Your task to perform on an android device: remove spam from my inbox in the gmail app Image 0: 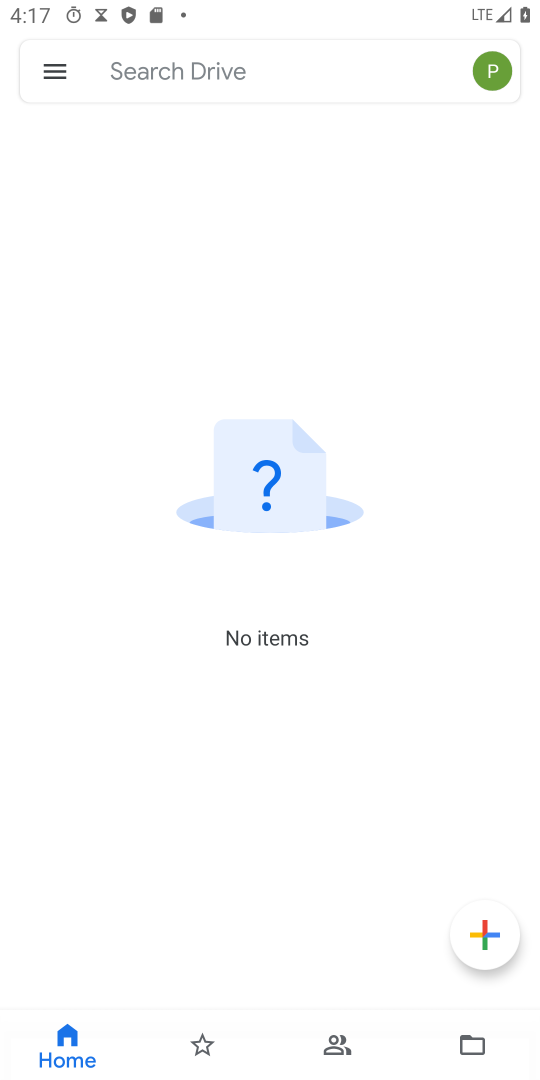
Step 0: press home button
Your task to perform on an android device: remove spam from my inbox in the gmail app Image 1: 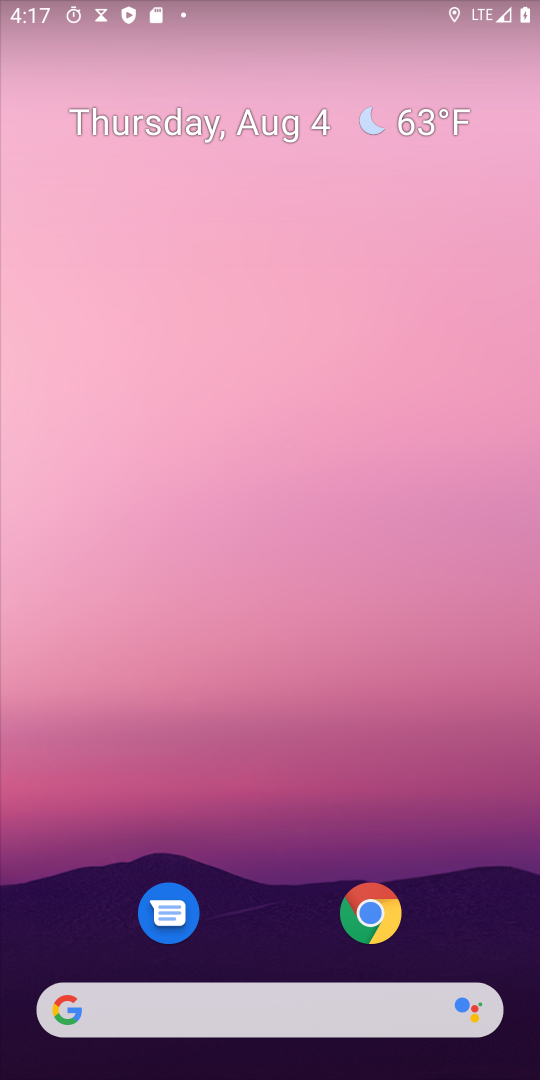
Step 1: drag from (265, 968) to (274, 114)
Your task to perform on an android device: remove spam from my inbox in the gmail app Image 2: 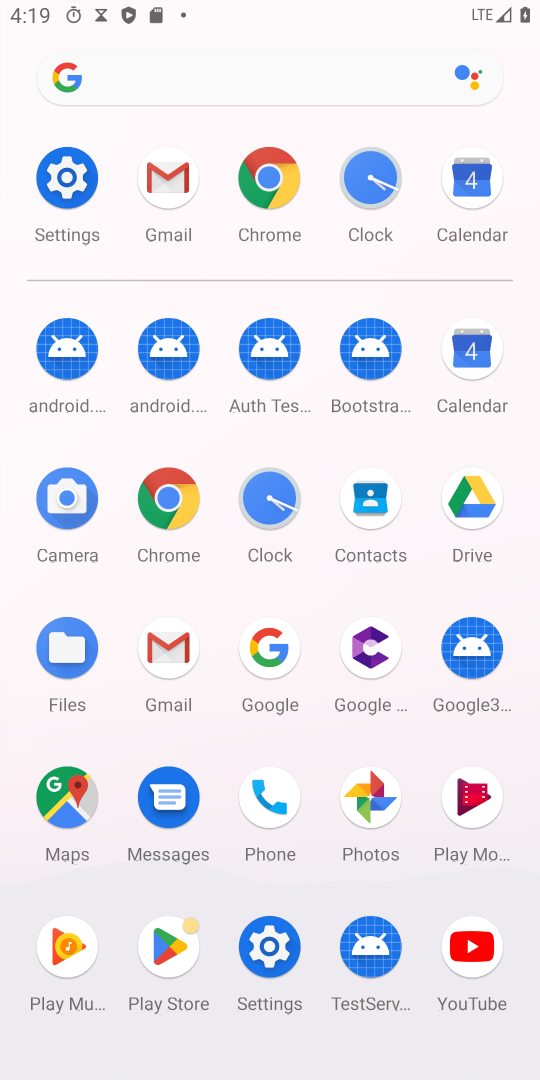
Step 2: click (181, 653)
Your task to perform on an android device: remove spam from my inbox in the gmail app Image 3: 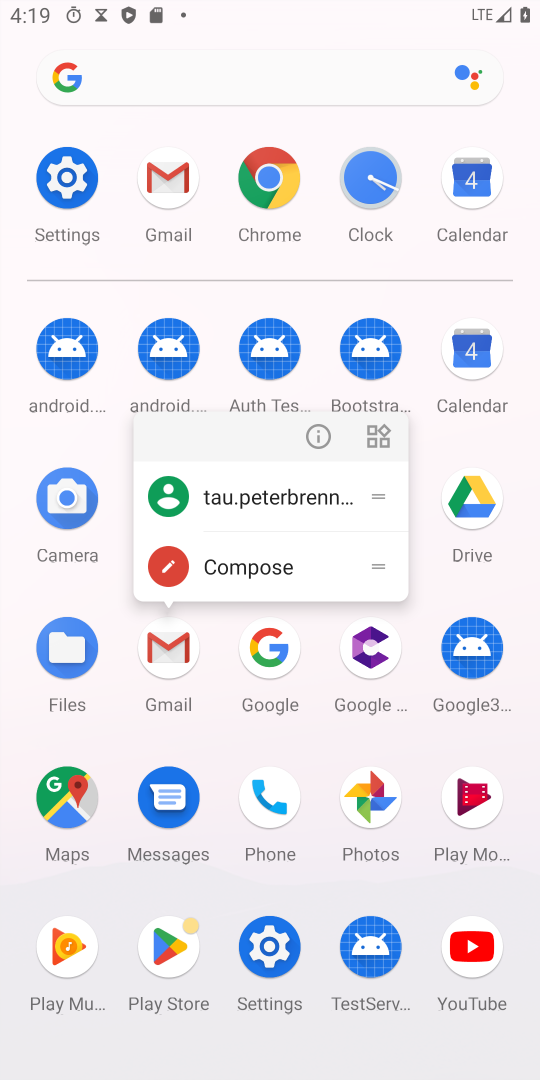
Step 3: click (166, 639)
Your task to perform on an android device: remove spam from my inbox in the gmail app Image 4: 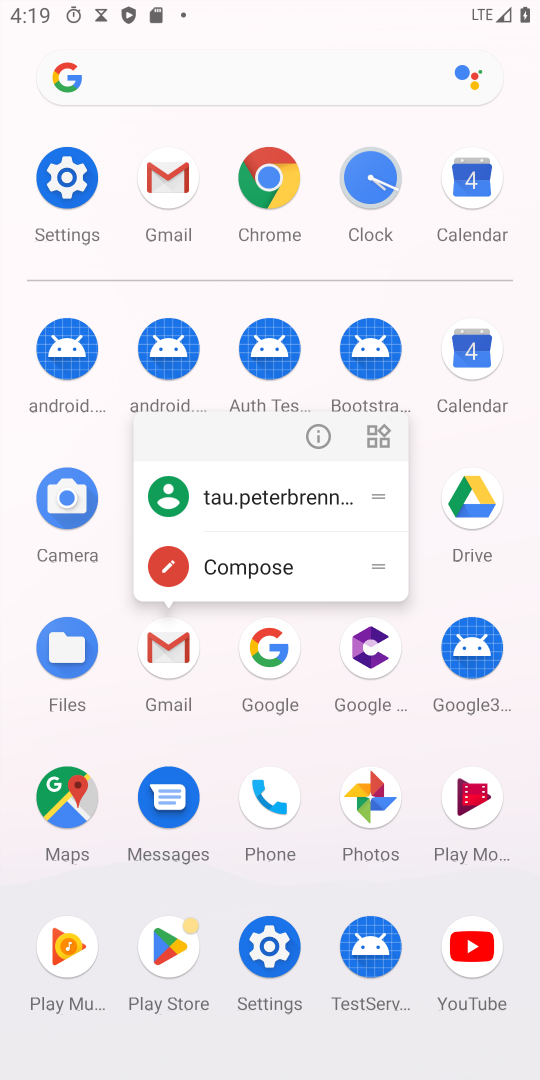
Step 4: click (166, 639)
Your task to perform on an android device: remove spam from my inbox in the gmail app Image 5: 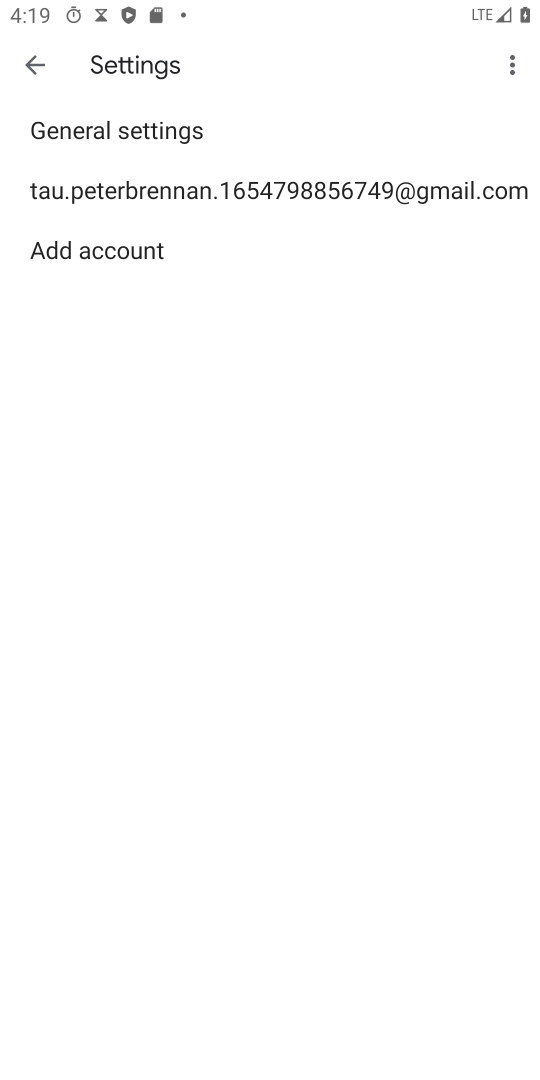
Step 5: press back button
Your task to perform on an android device: remove spam from my inbox in the gmail app Image 6: 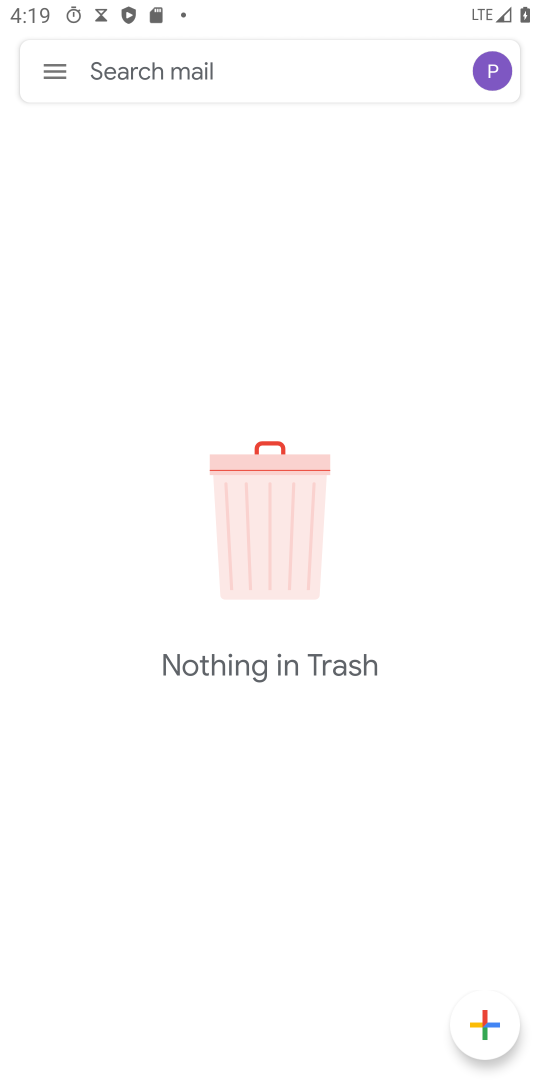
Step 6: click (53, 64)
Your task to perform on an android device: remove spam from my inbox in the gmail app Image 7: 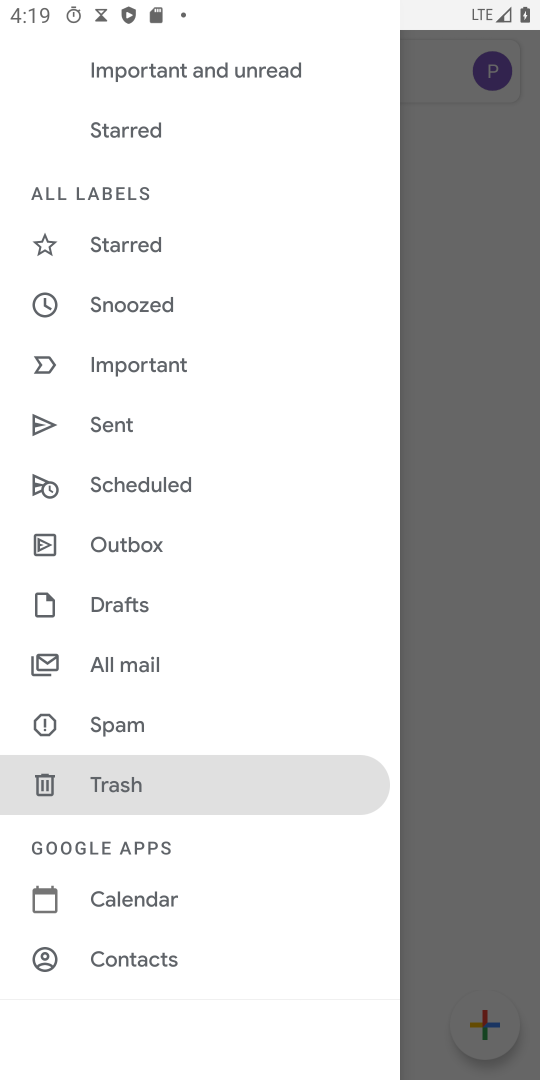
Step 7: click (142, 712)
Your task to perform on an android device: remove spam from my inbox in the gmail app Image 8: 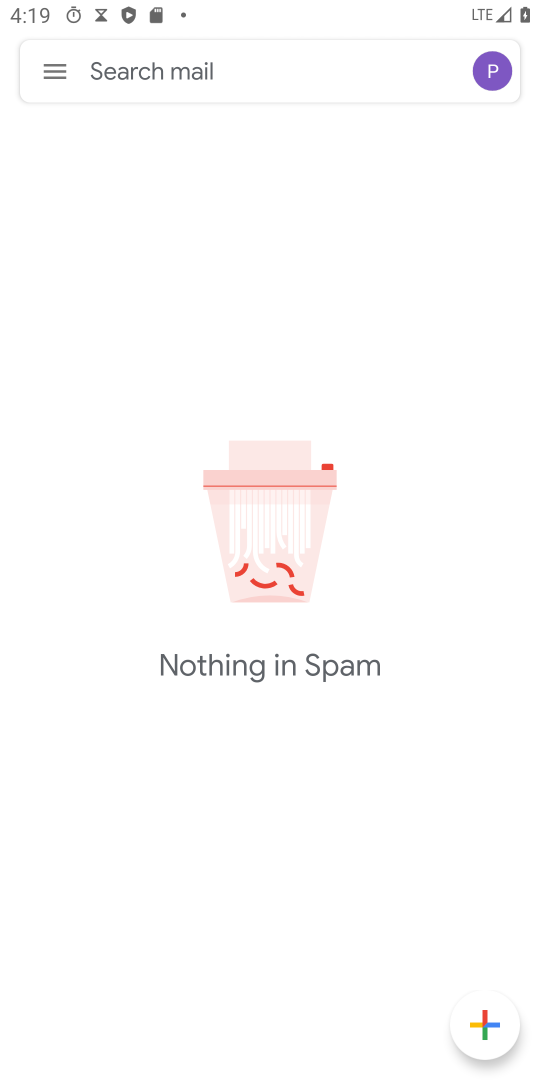
Step 8: task complete